Your task to perform on an android device: add a contact Image 0: 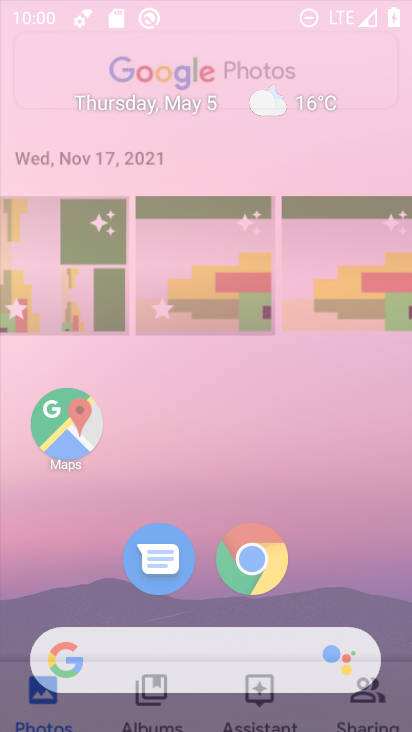
Step 0: drag from (392, 640) to (304, 161)
Your task to perform on an android device: add a contact Image 1: 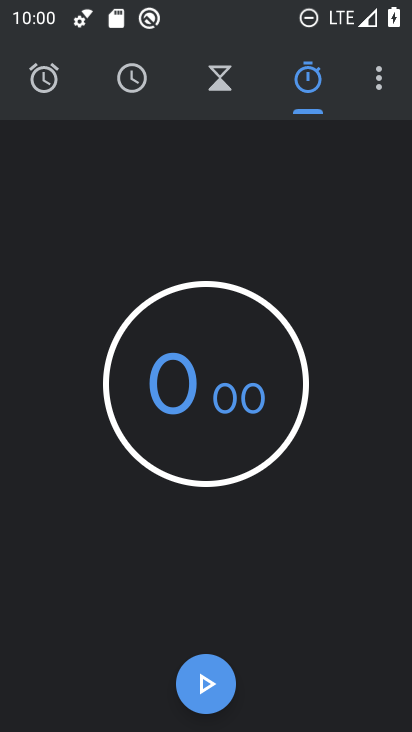
Step 1: press home button
Your task to perform on an android device: add a contact Image 2: 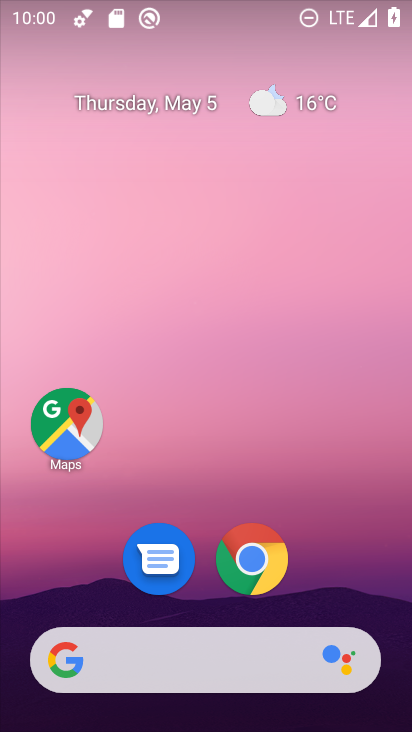
Step 2: drag from (397, 643) to (353, 131)
Your task to perform on an android device: add a contact Image 3: 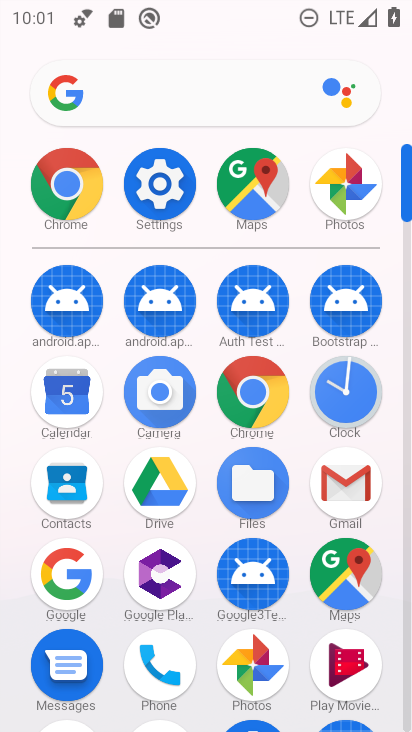
Step 3: click (67, 484)
Your task to perform on an android device: add a contact Image 4: 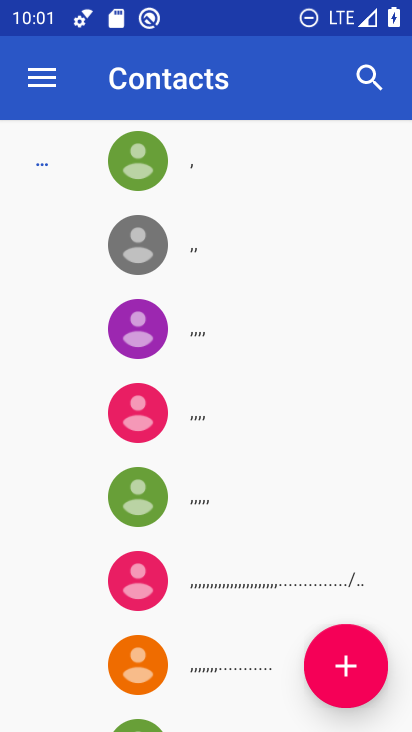
Step 4: click (358, 674)
Your task to perform on an android device: add a contact Image 5: 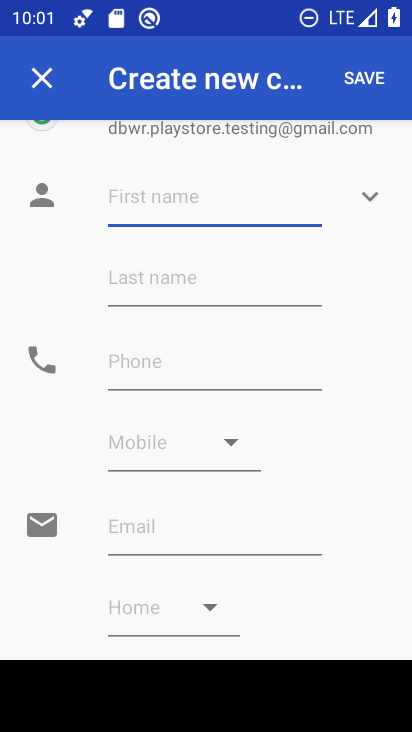
Step 5: type "angela"
Your task to perform on an android device: add a contact Image 6: 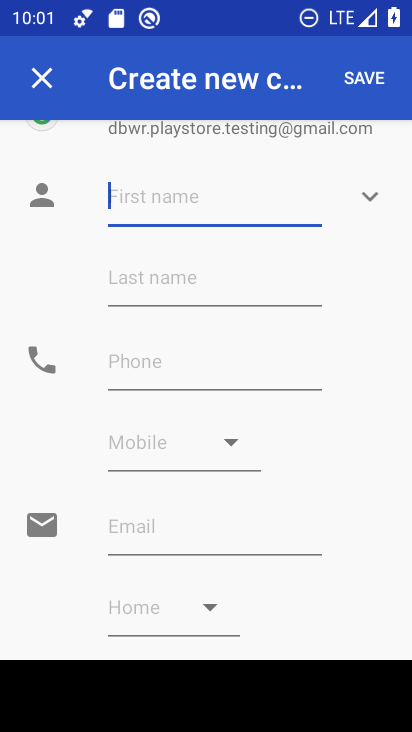
Step 6: click (383, 78)
Your task to perform on an android device: add a contact Image 7: 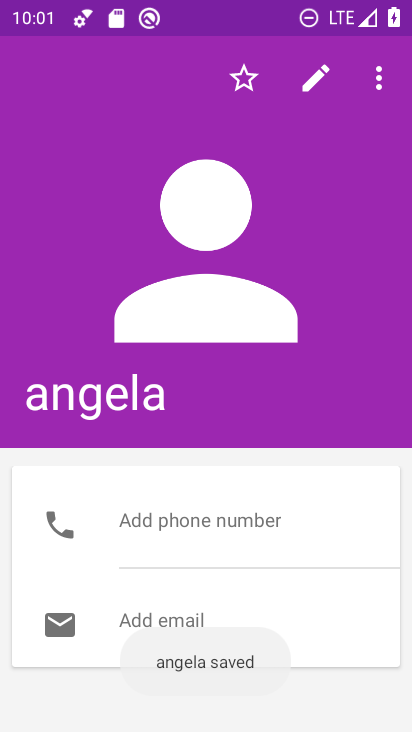
Step 7: task complete